Your task to perform on an android device: Search for "bose quietcomfort 35" on target, select the first entry, and add it to the cart. Image 0: 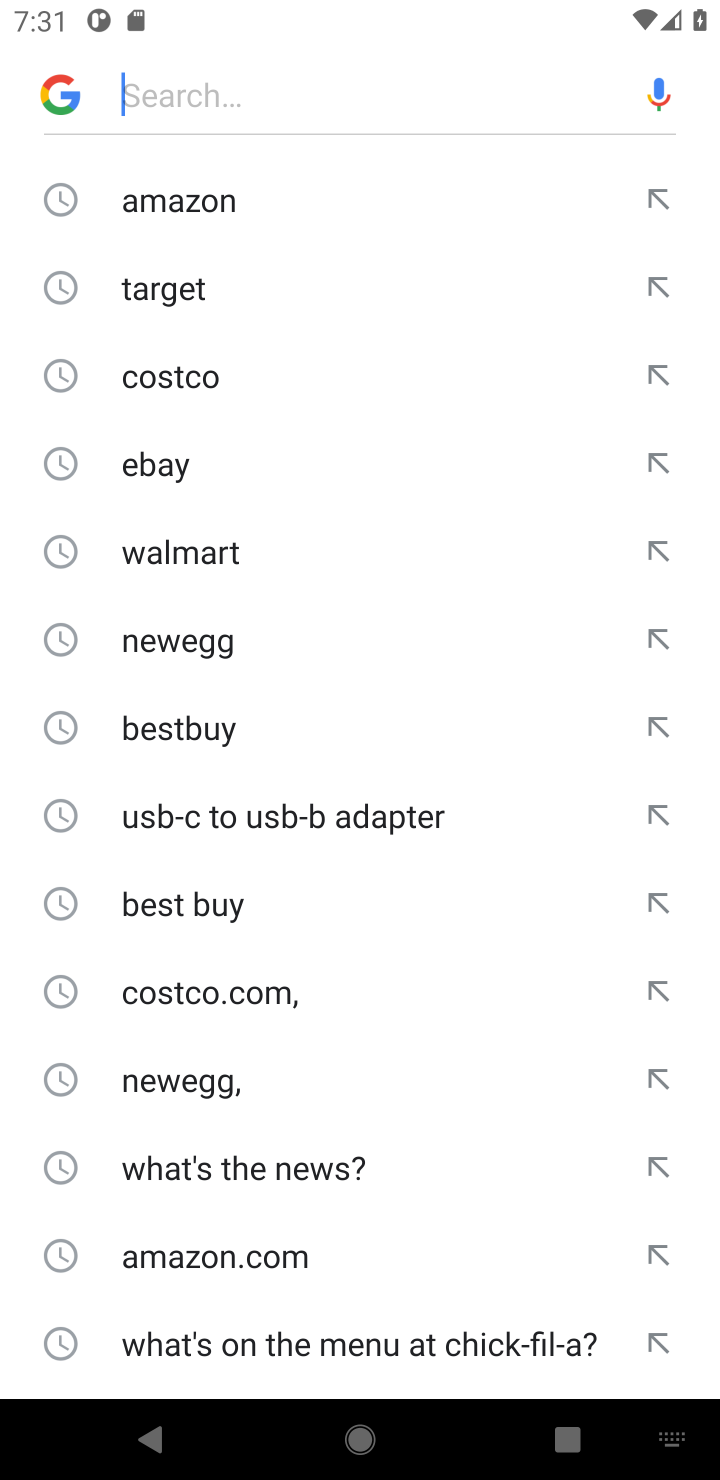
Step 0: type "target"
Your task to perform on an android device: Search for "bose quietcomfort 35" on target, select the first entry, and add it to the cart. Image 1: 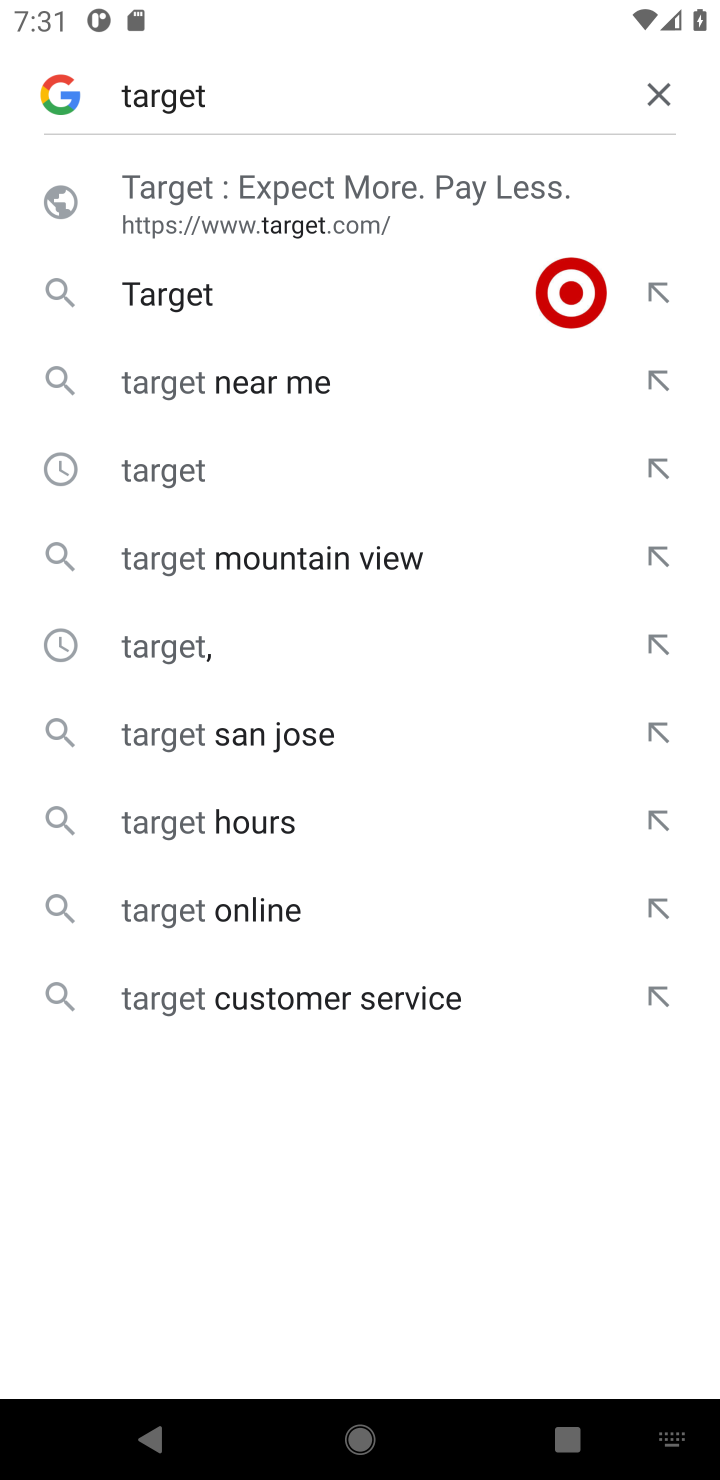
Step 1: click (209, 315)
Your task to perform on an android device: Search for "bose quietcomfort 35" on target, select the first entry, and add it to the cart. Image 2: 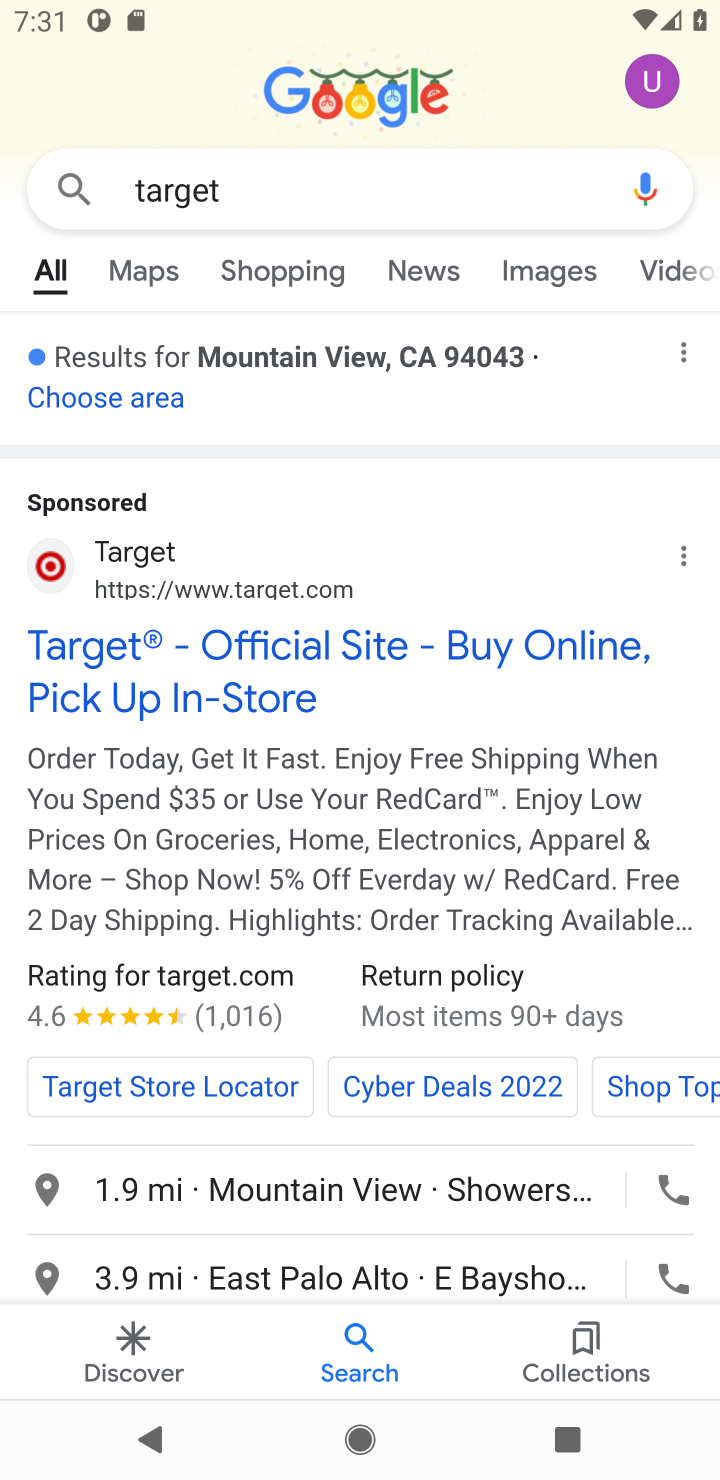
Step 2: click (93, 701)
Your task to perform on an android device: Search for "bose quietcomfort 35" on target, select the first entry, and add it to the cart. Image 3: 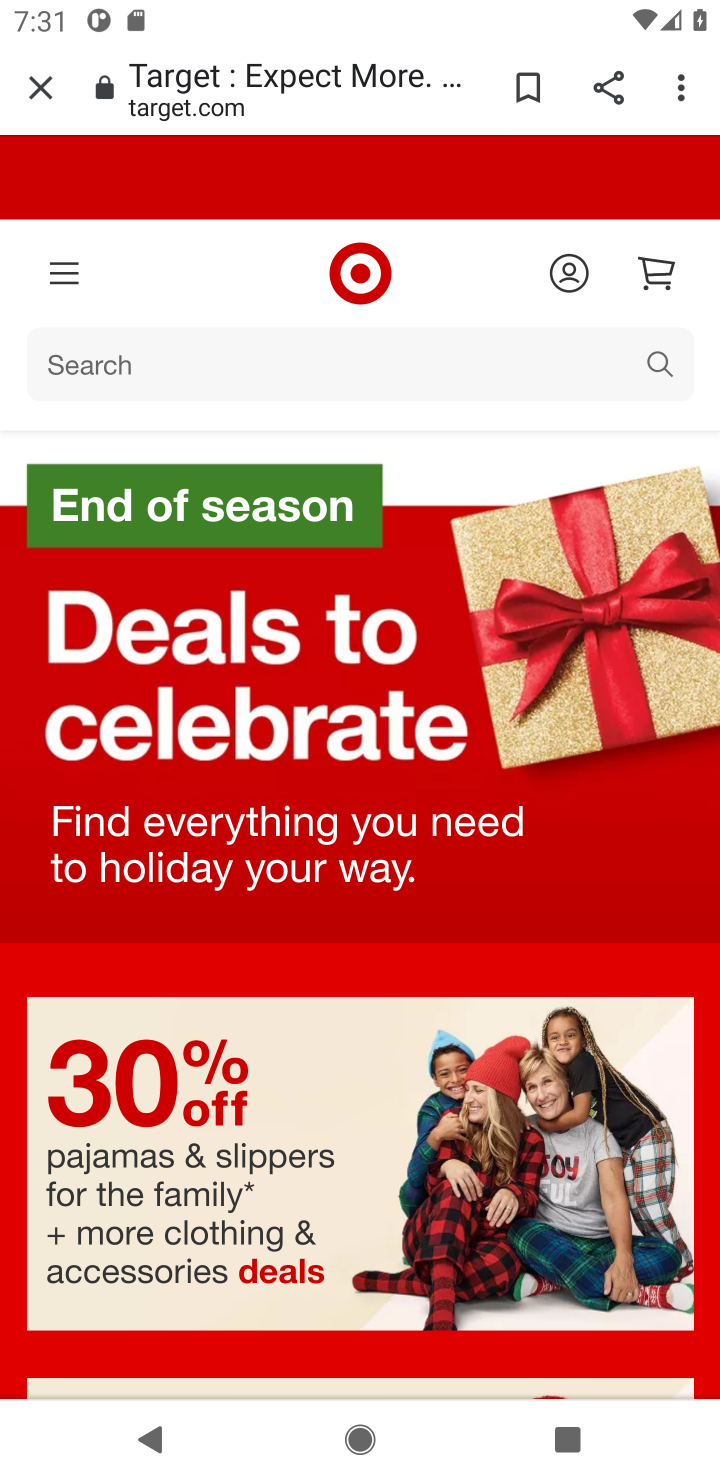
Step 3: click (279, 377)
Your task to perform on an android device: Search for "bose quietcomfort 35" on target, select the first entry, and add it to the cart. Image 4: 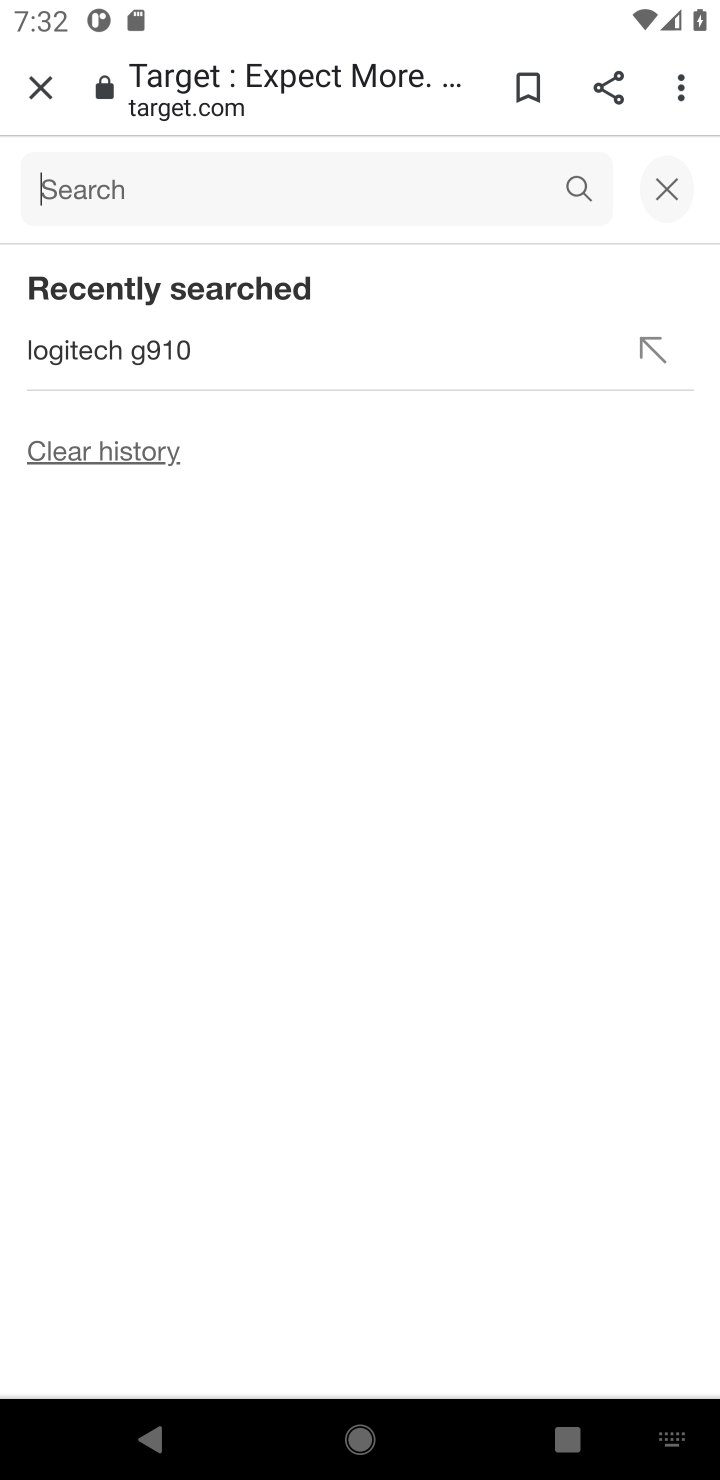
Step 4: type "bose quietcomfort"
Your task to perform on an android device: Search for "bose quietcomfort 35" on target, select the first entry, and add it to the cart. Image 5: 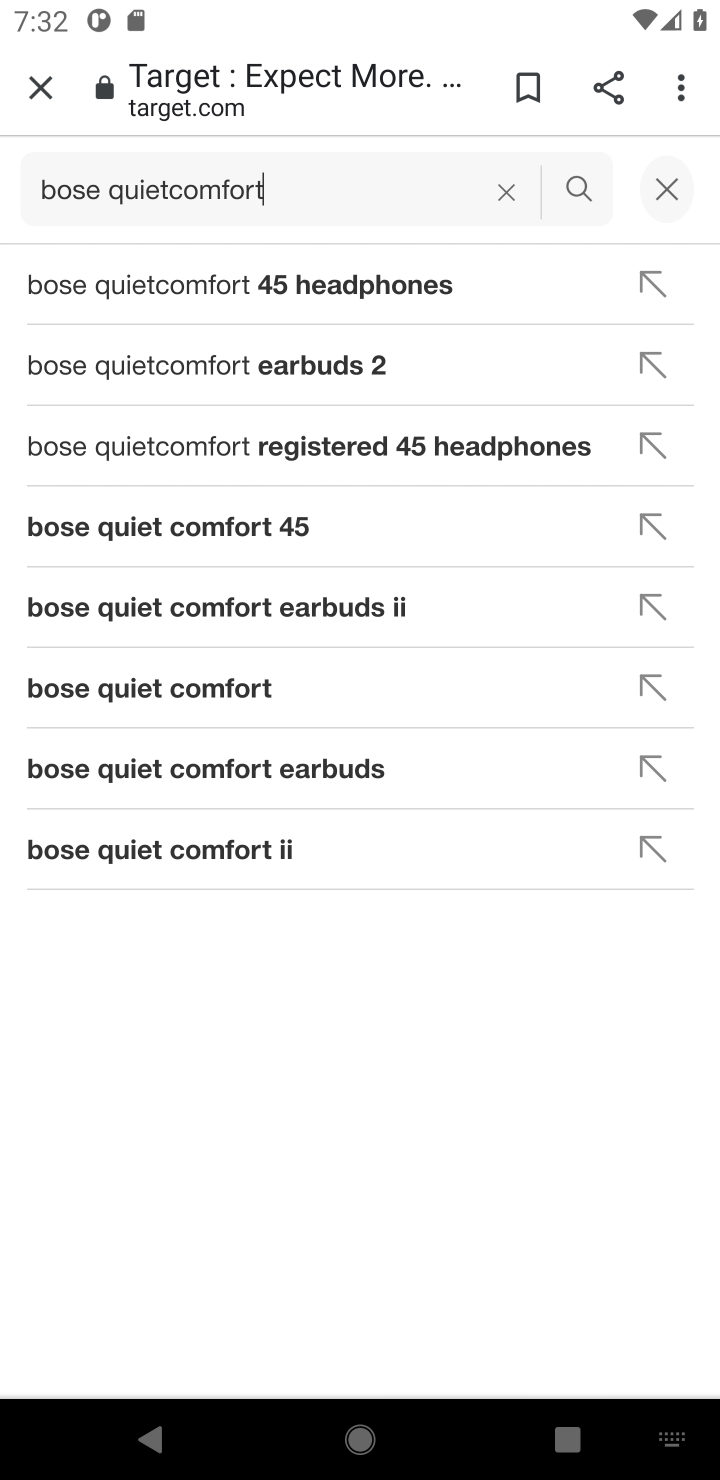
Step 5: click (554, 201)
Your task to perform on an android device: Search for "bose quietcomfort 35" on target, select the first entry, and add it to the cart. Image 6: 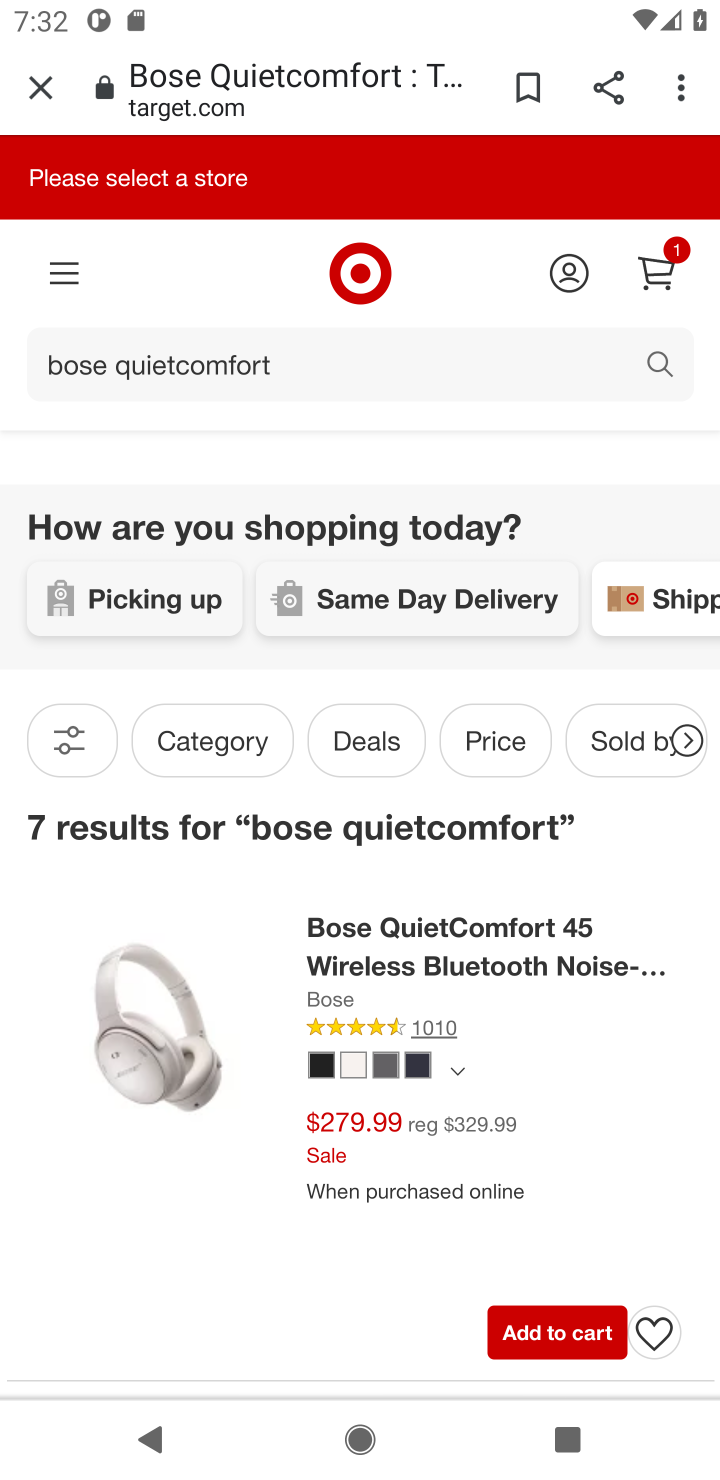
Step 6: click (533, 1307)
Your task to perform on an android device: Search for "bose quietcomfort 35" on target, select the first entry, and add it to the cart. Image 7: 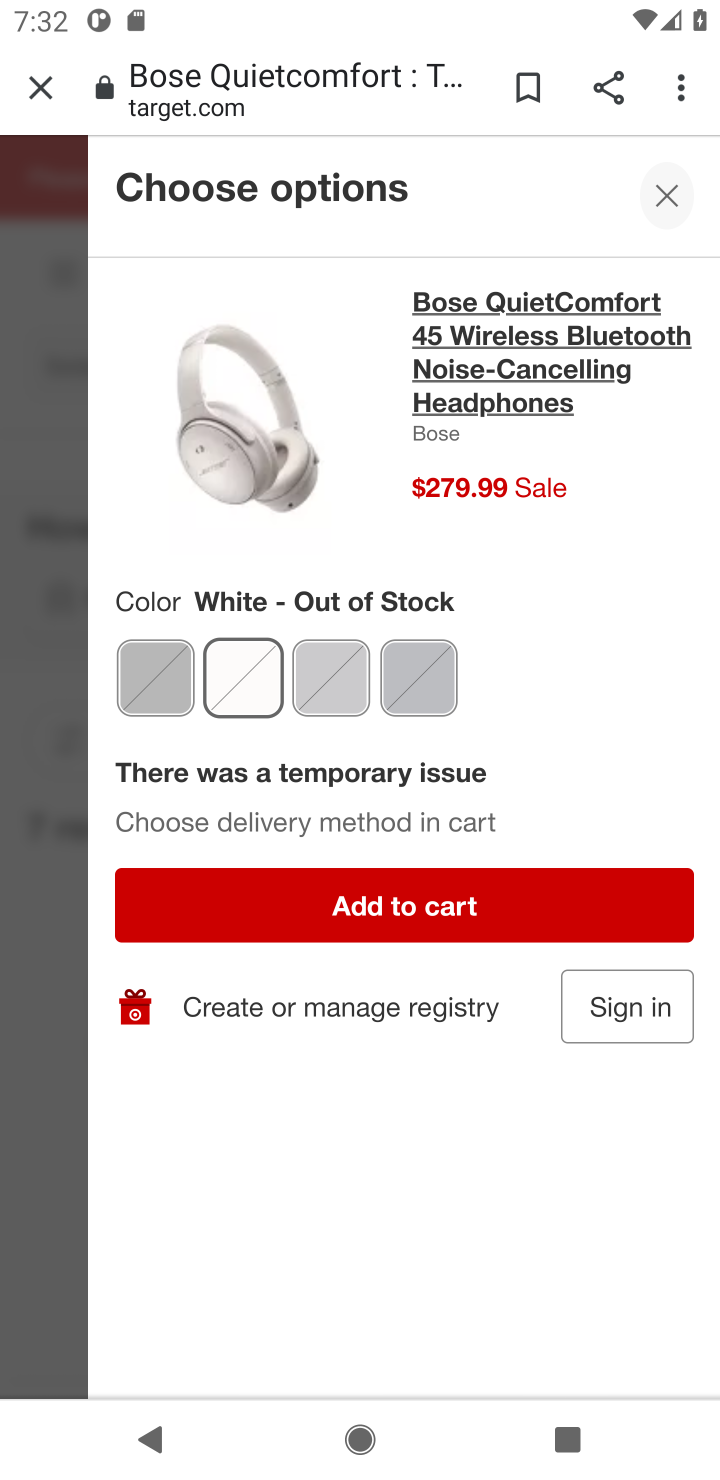
Step 7: click (512, 896)
Your task to perform on an android device: Search for "bose quietcomfort 35" on target, select the first entry, and add it to the cart. Image 8: 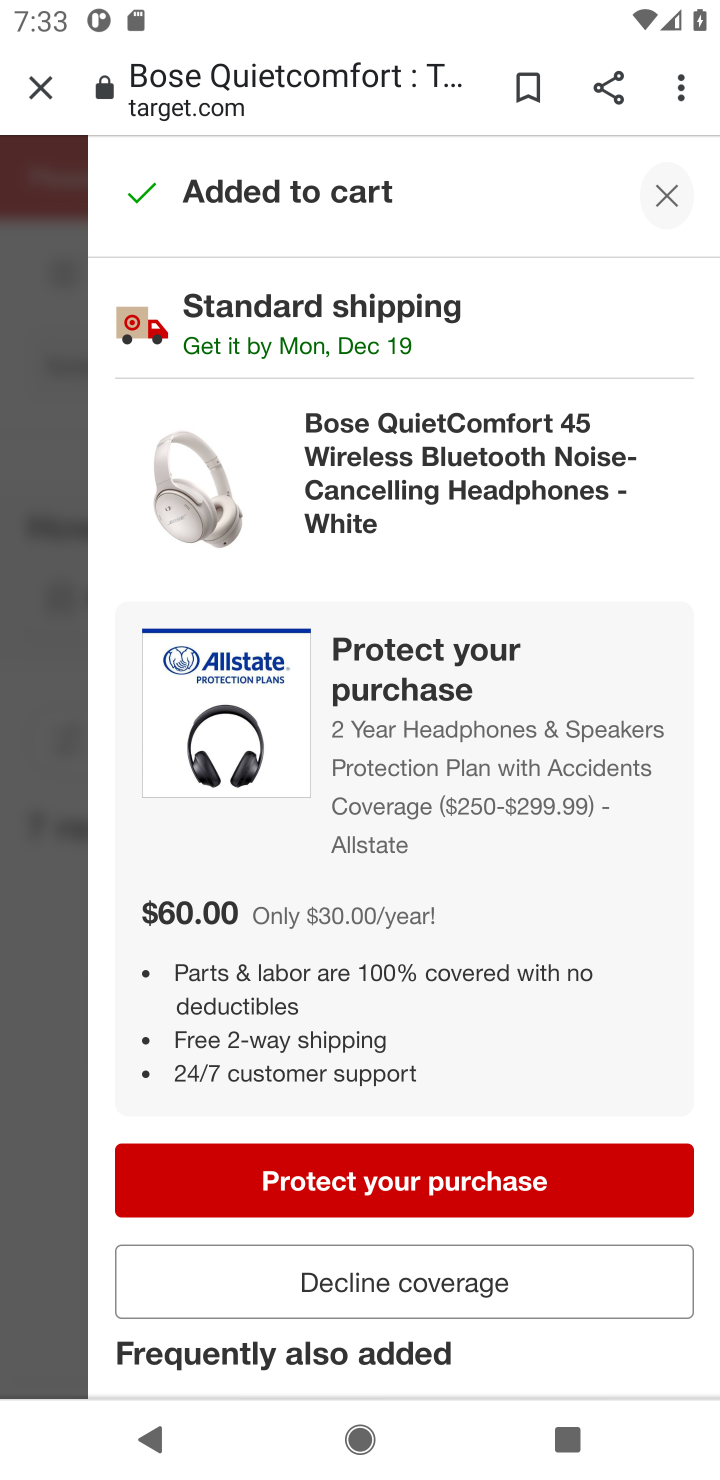
Step 8: task complete